Your task to perform on an android device: Go to display settings Image 0: 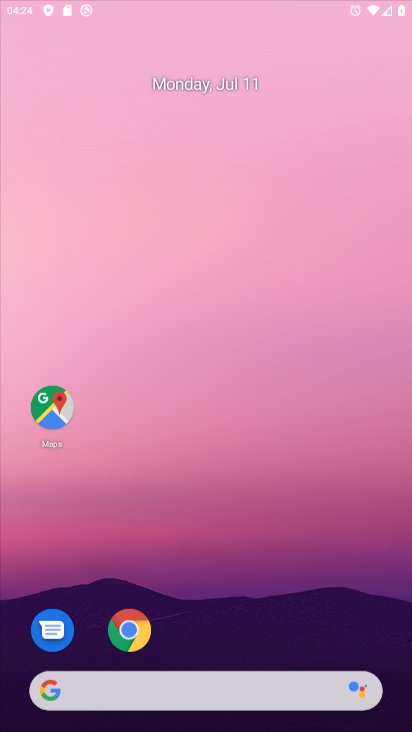
Step 0: press home button
Your task to perform on an android device: Go to display settings Image 1: 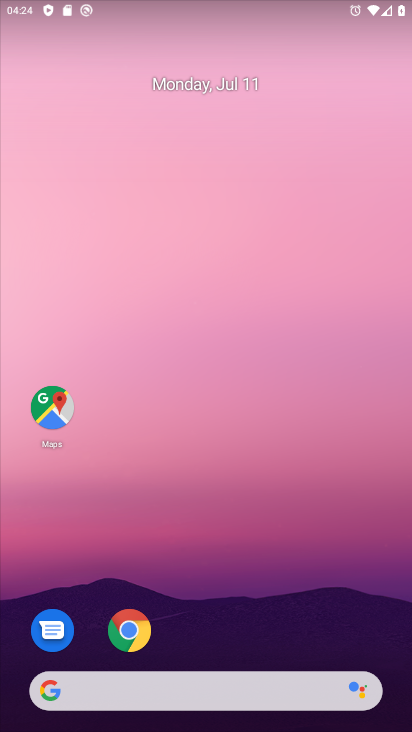
Step 1: press home button
Your task to perform on an android device: Go to display settings Image 2: 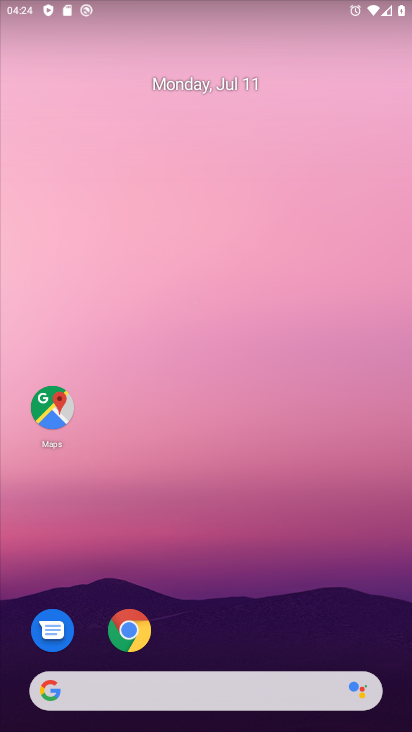
Step 2: drag from (208, 653) to (257, 0)
Your task to perform on an android device: Go to display settings Image 3: 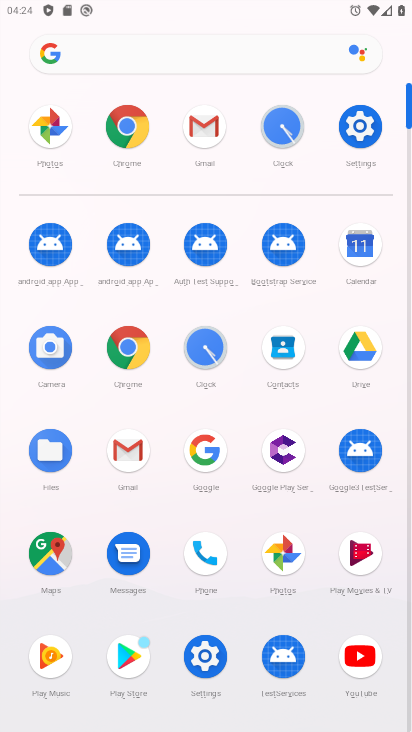
Step 3: click (361, 122)
Your task to perform on an android device: Go to display settings Image 4: 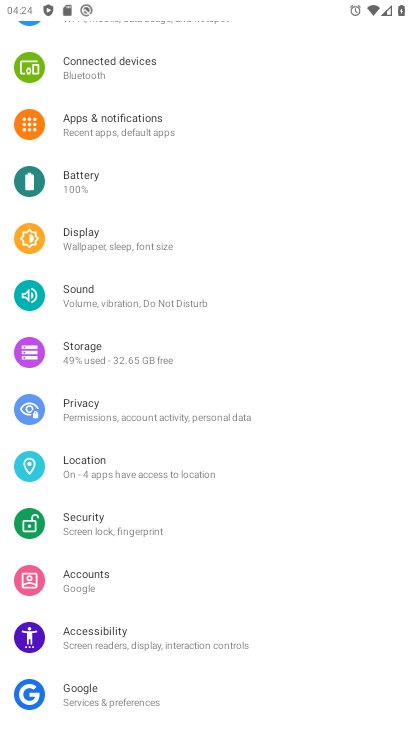
Step 4: click (112, 230)
Your task to perform on an android device: Go to display settings Image 5: 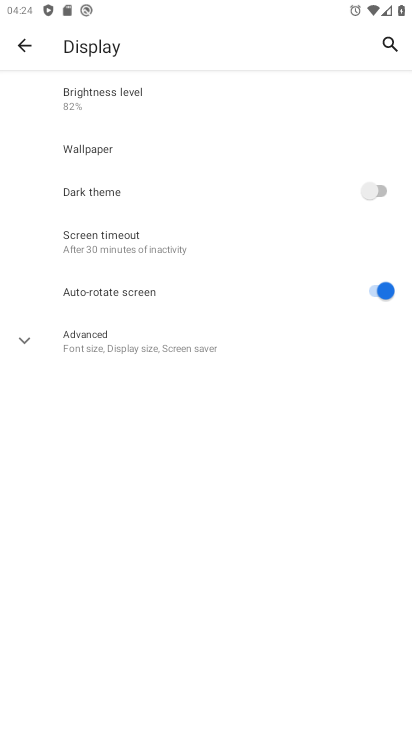
Step 5: click (23, 333)
Your task to perform on an android device: Go to display settings Image 6: 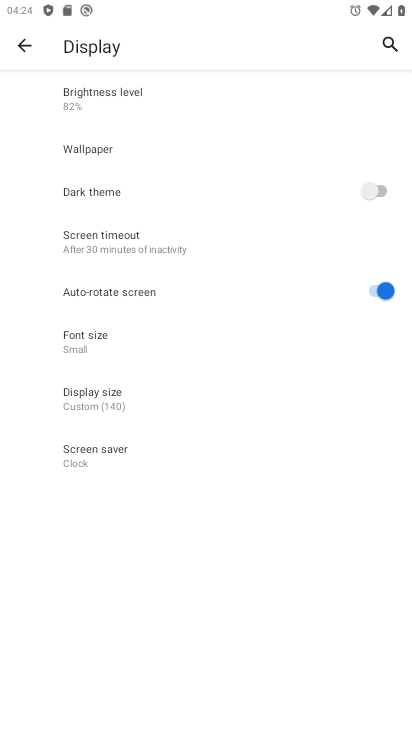
Step 6: task complete